Your task to perform on an android device: change the clock style Image 0: 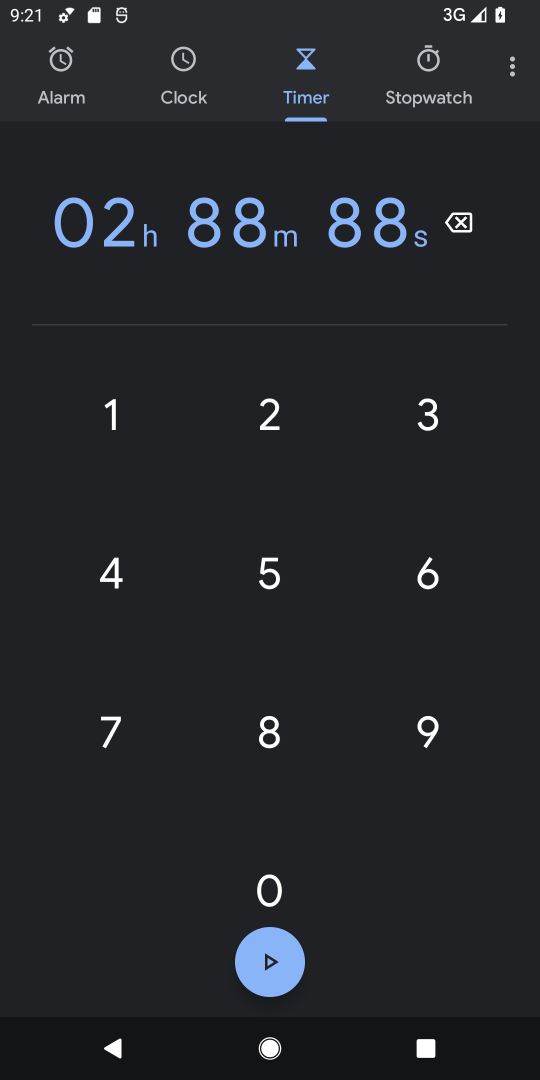
Step 0: click (506, 75)
Your task to perform on an android device: change the clock style Image 1: 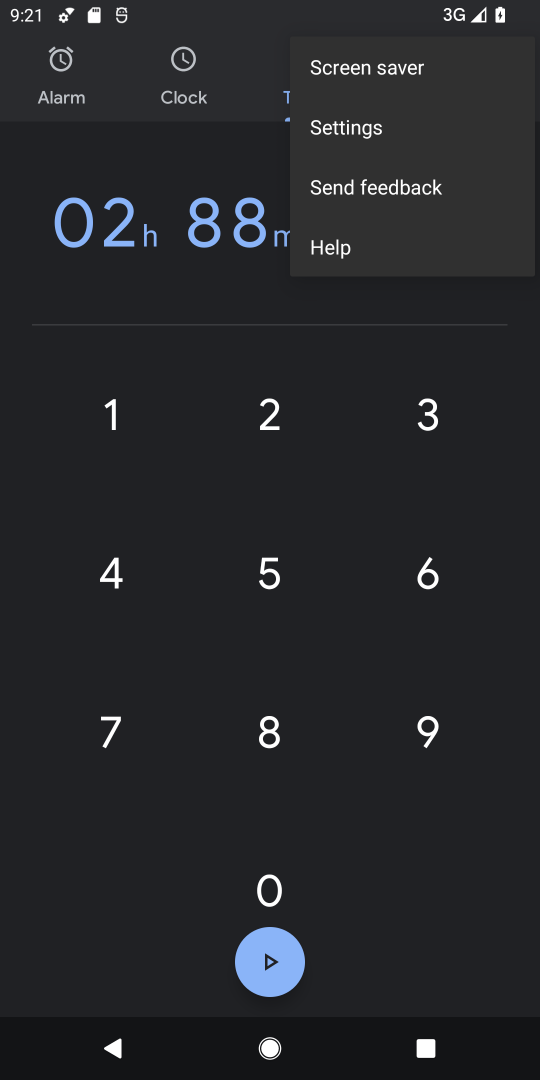
Step 1: click (392, 136)
Your task to perform on an android device: change the clock style Image 2: 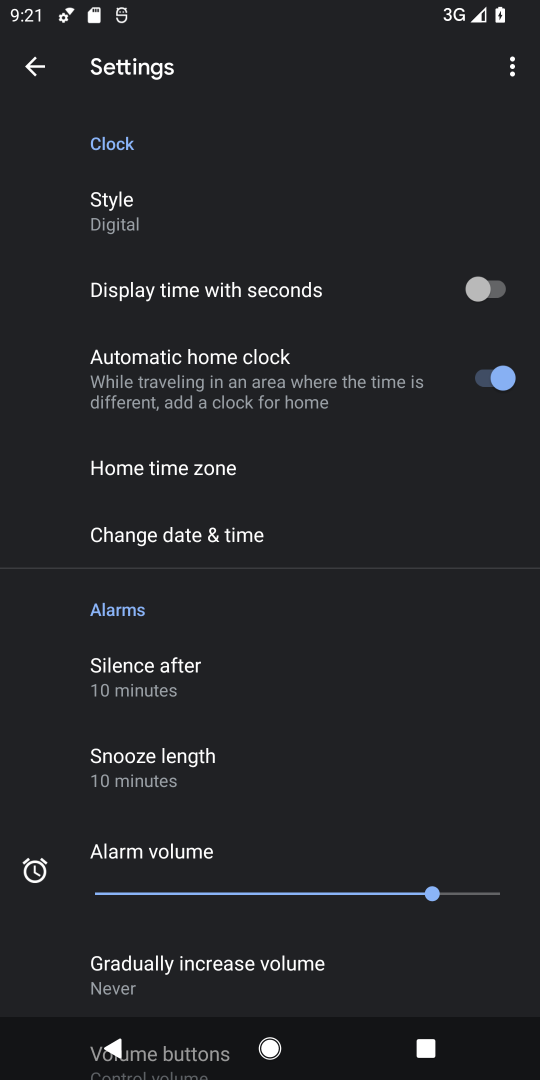
Step 2: click (288, 213)
Your task to perform on an android device: change the clock style Image 3: 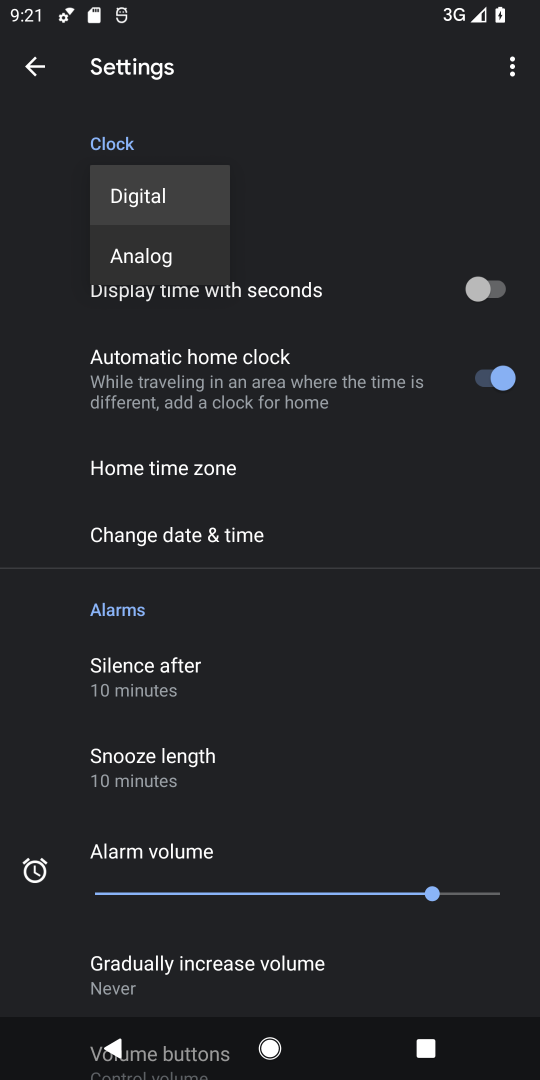
Step 3: click (160, 268)
Your task to perform on an android device: change the clock style Image 4: 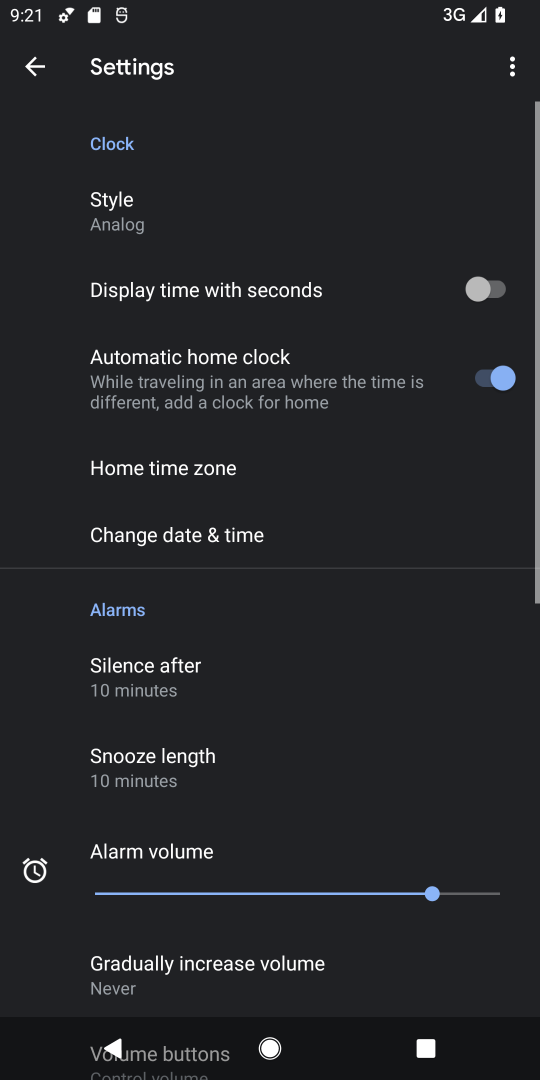
Step 4: task complete